Your task to perform on an android device: turn on improve location accuracy Image 0: 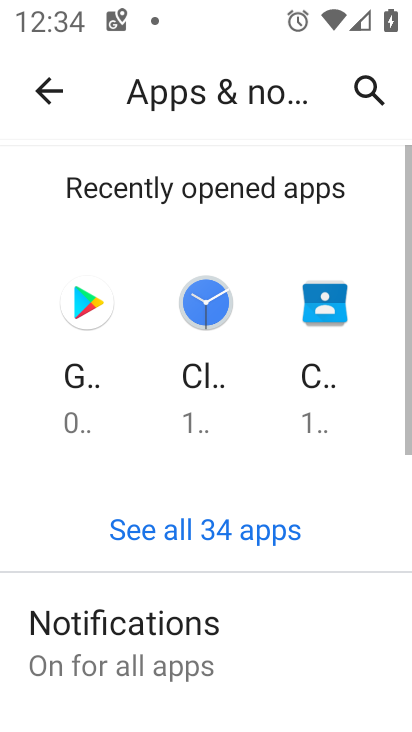
Step 0: press home button
Your task to perform on an android device: turn on improve location accuracy Image 1: 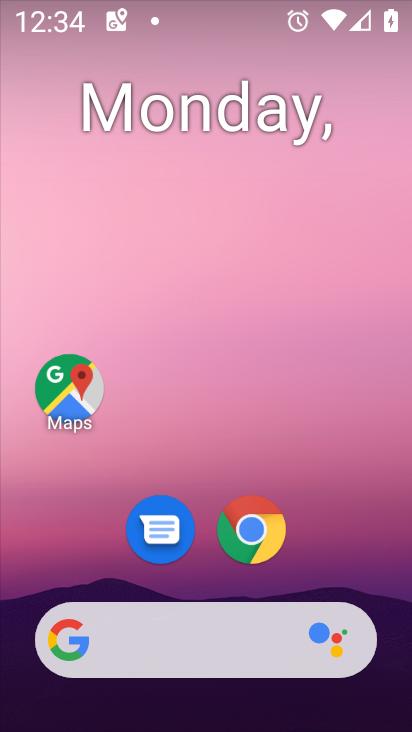
Step 1: drag from (153, 661) to (149, 154)
Your task to perform on an android device: turn on improve location accuracy Image 2: 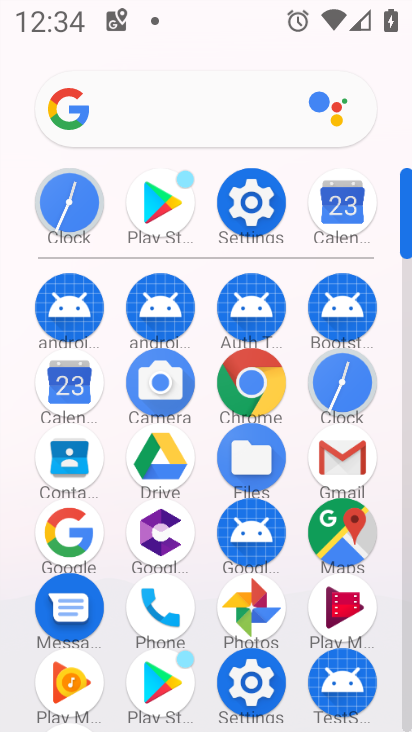
Step 2: click (248, 700)
Your task to perform on an android device: turn on improve location accuracy Image 3: 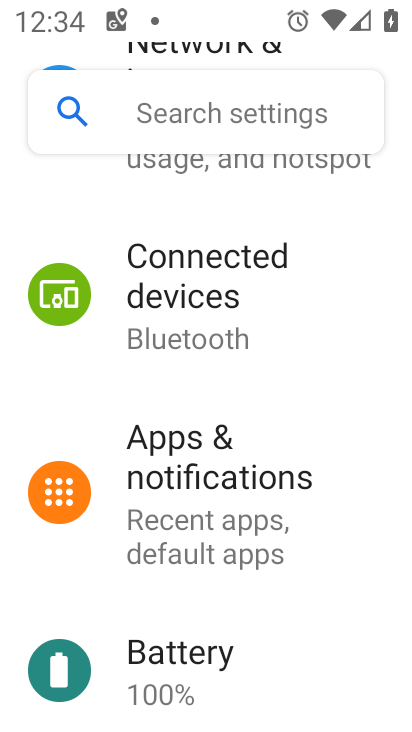
Step 3: drag from (214, 560) to (159, 23)
Your task to perform on an android device: turn on improve location accuracy Image 4: 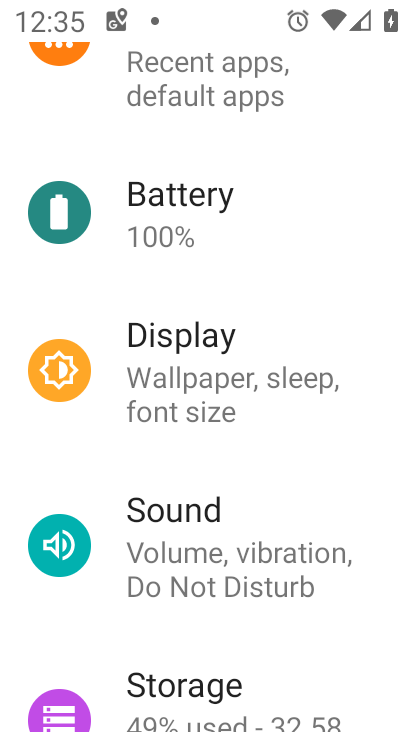
Step 4: drag from (227, 627) to (244, 9)
Your task to perform on an android device: turn on improve location accuracy Image 5: 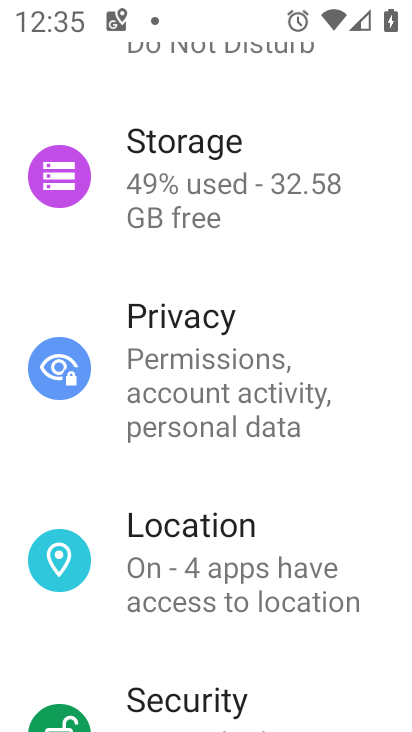
Step 5: click (225, 548)
Your task to perform on an android device: turn on improve location accuracy Image 6: 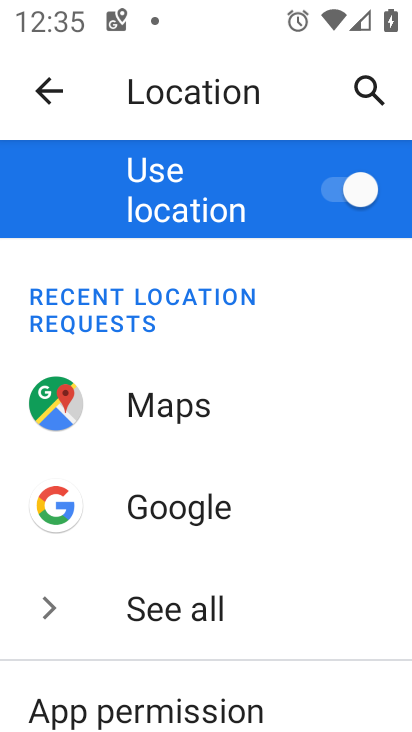
Step 6: drag from (142, 617) to (137, 186)
Your task to perform on an android device: turn on improve location accuracy Image 7: 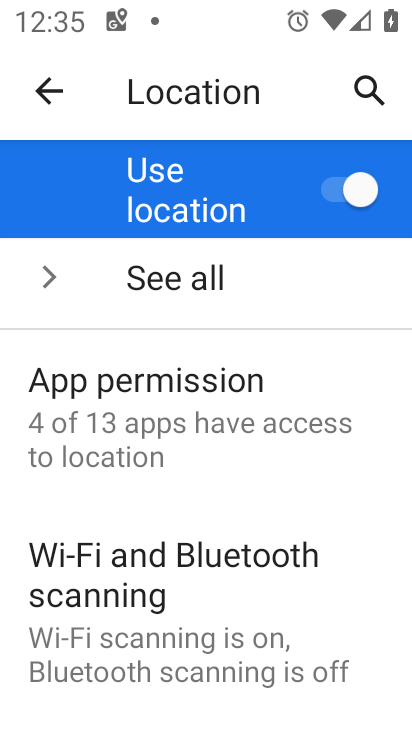
Step 7: drag from (190, 630) to (169, 61)
Your task to perform on an android device: turn on improve location accuracy Image 8: 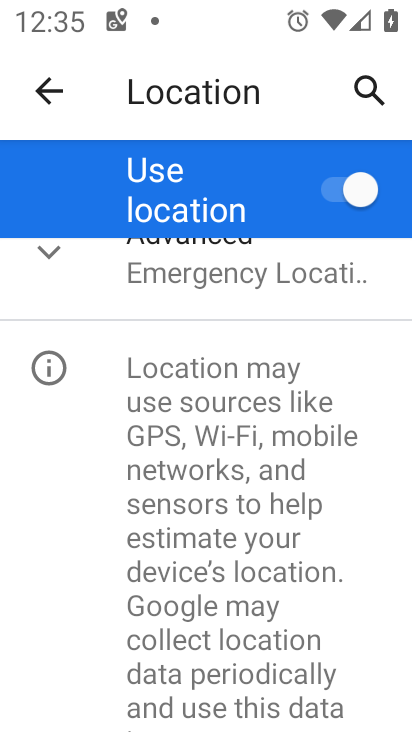
Step 8: click (159, 288)
Your task to perform on an android device: turn on improve location accuracy Image 9: 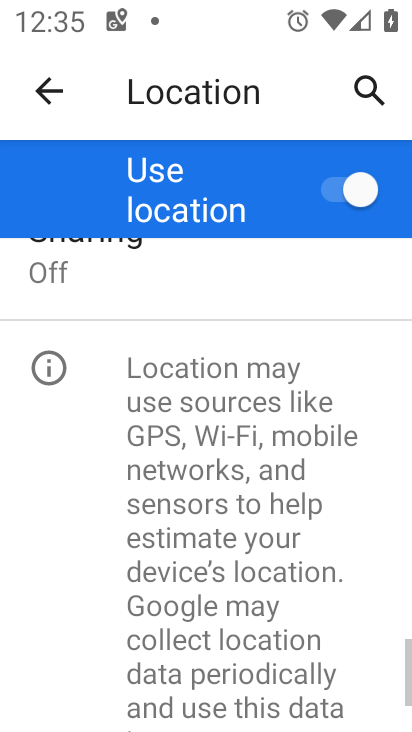
Step 9: drag from (168, 330) to (164, 623)
Your task to perform on an android device: turn on improve location accuracy Image 10: 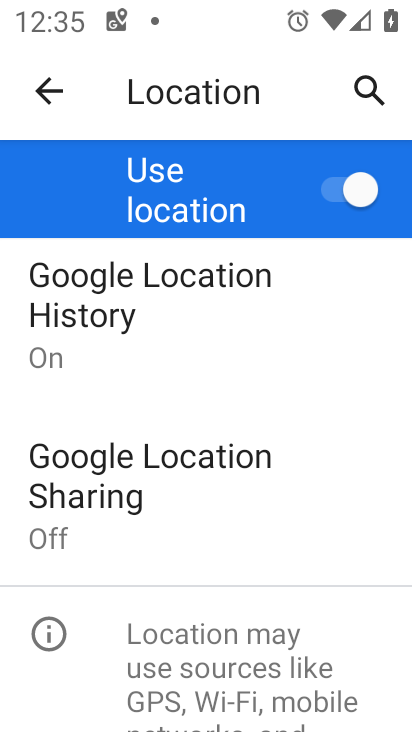
Step 10: drag from (156, 325) to (155, 573)
Your task to perform on an android device: turn on improve location accuracy Image 11: 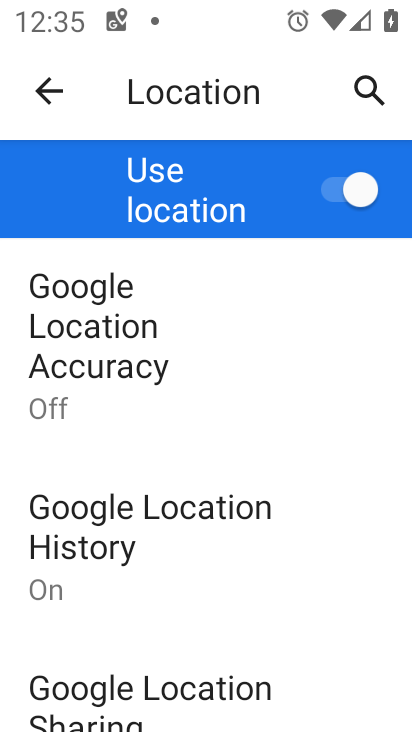
Step 11: click (130, 350)
Your task to perform on an android device: turn on improve location accuracy Image 12: 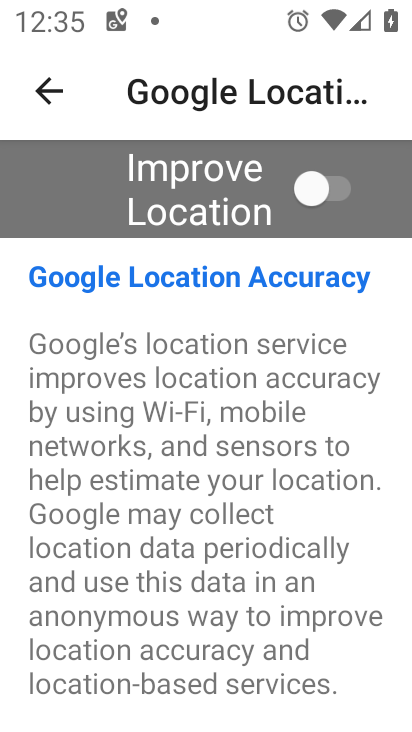
Step 12: click (311, 162)
Your task to perform on an android device: turn on improve location accuracy Image 13: 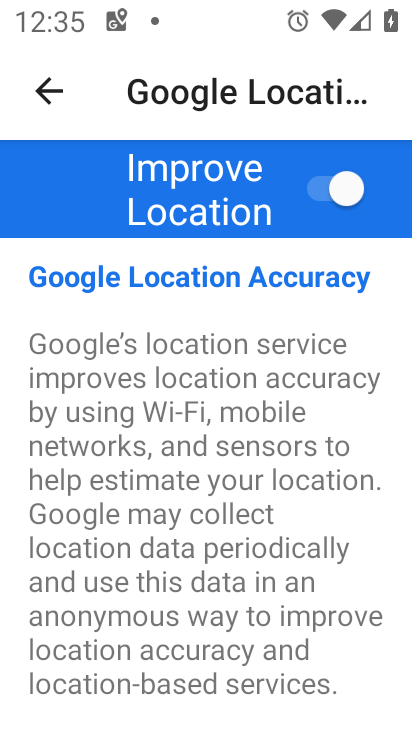
Step 13: task complete